Your task to perform on an android device: open wifi settings Image 0: 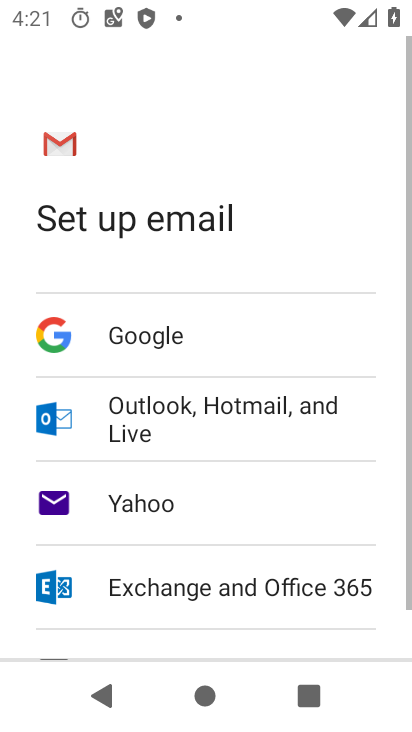
Step 0: press home button
Your task to perform on an android device: open wifi settings Image 1: 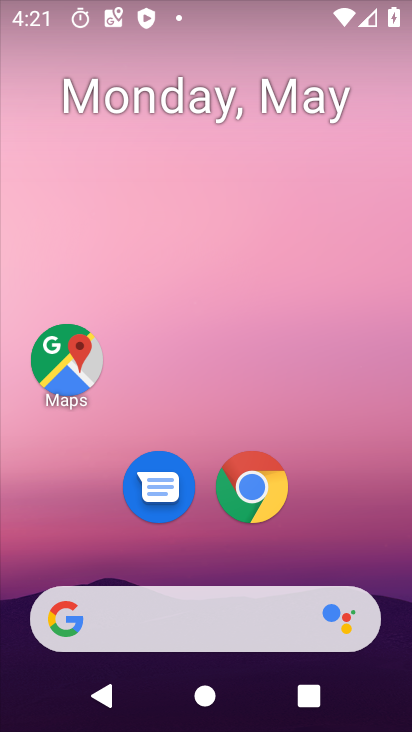
Step 1: drag from (361, 538) to (40, 7)
Your task to perform on an android device: open wifi settings Image 2: 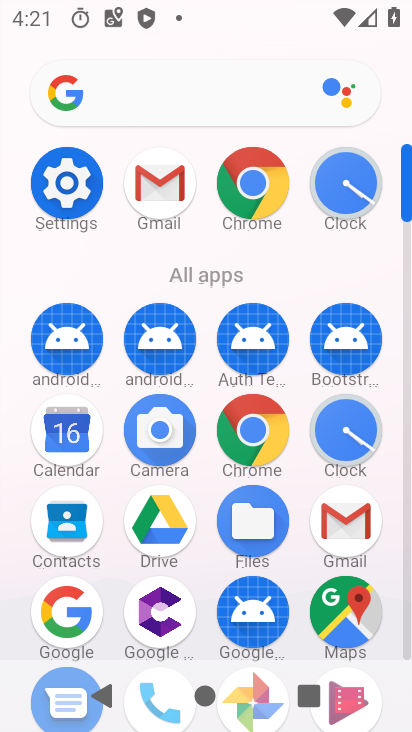
Step 2: click (73, 200)
Your task to perform on an android device: open wifi settings Image 3: 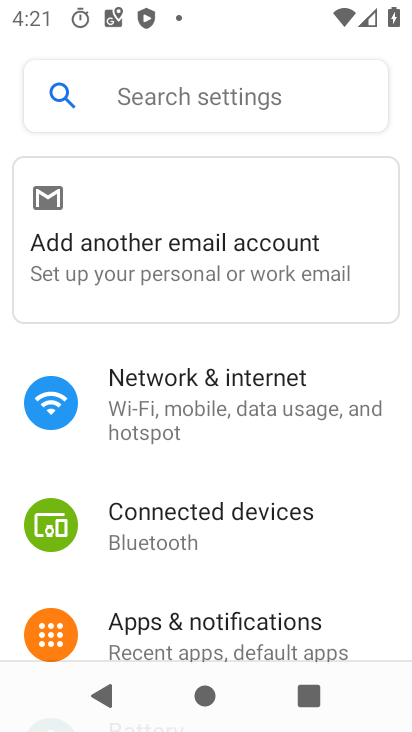
Step 3: click (142, 385)
Your task to perform on an android device: open wifi settings Image 4: 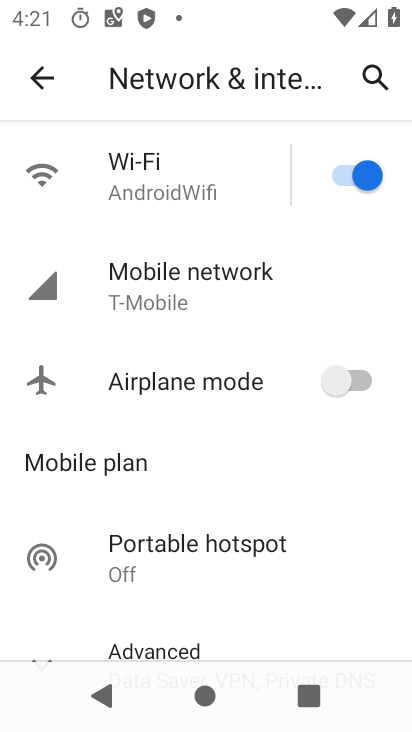
Step 4: click (116, 175)
Your task to perform on an android device: open wifi settings Image 5: 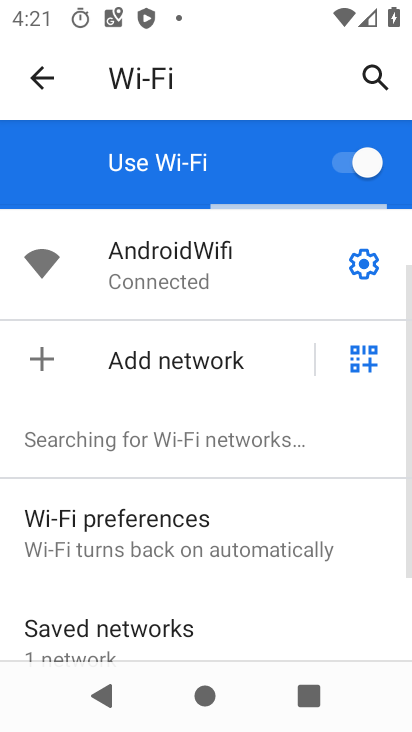
Step 5: task complete